Your task to perform on an android device: Open display settings Image 0: 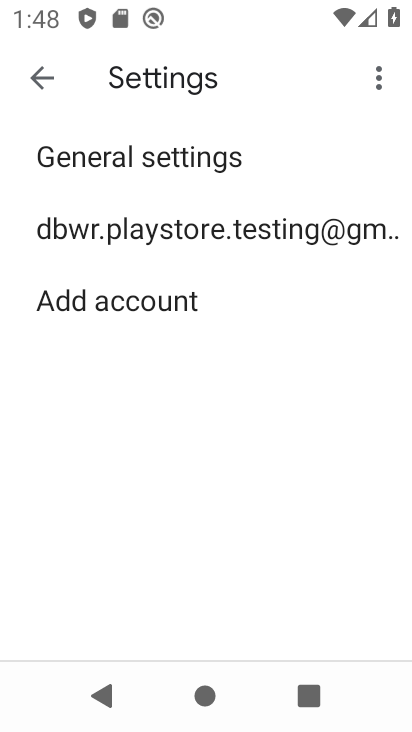
Step 0: press home button
Your task to perform on an android device: Open display settings Image 1: 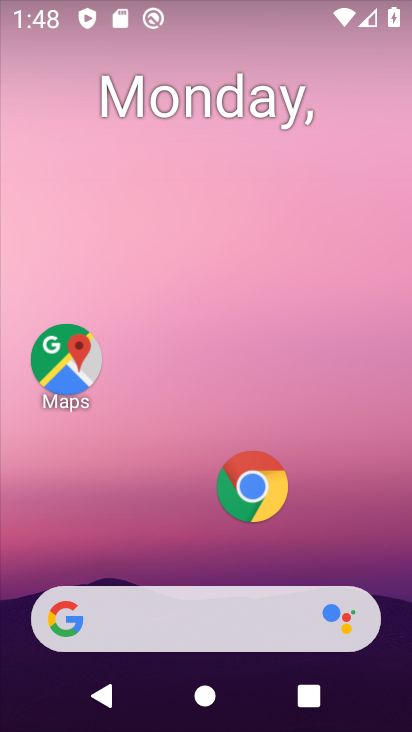
Step 1: drag from (149, 571) to (283, 0)
Your task to perform on an android device: Open display settings Image 2: 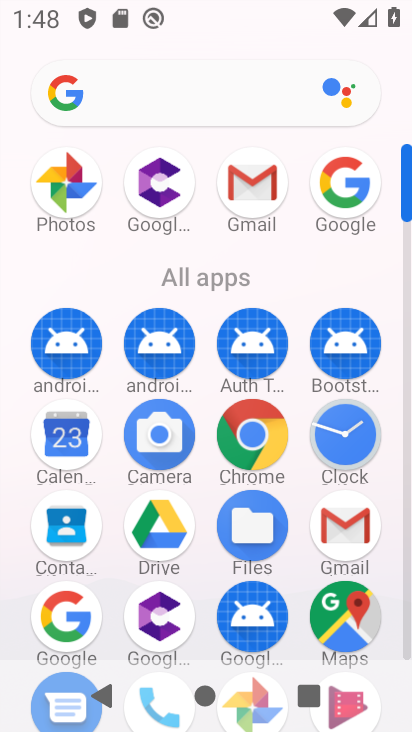
Step 2: drag from (205, 565) to (244, 173)
Your task to perform on an android device: Open display settings Image 3: 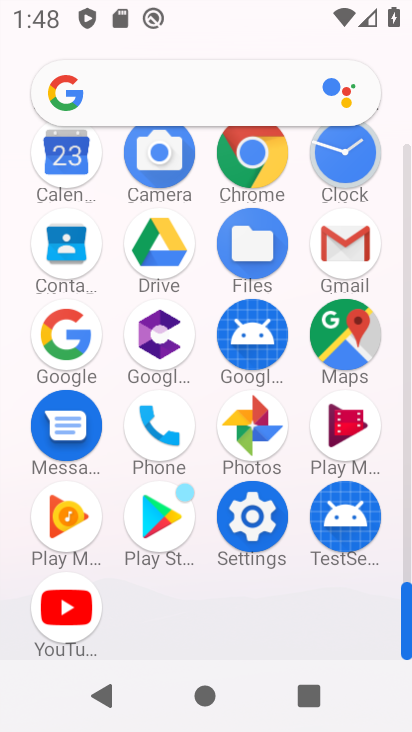
Step 3: click (257, 512)
Your task to perform on an android device: Open display settings Image 4: 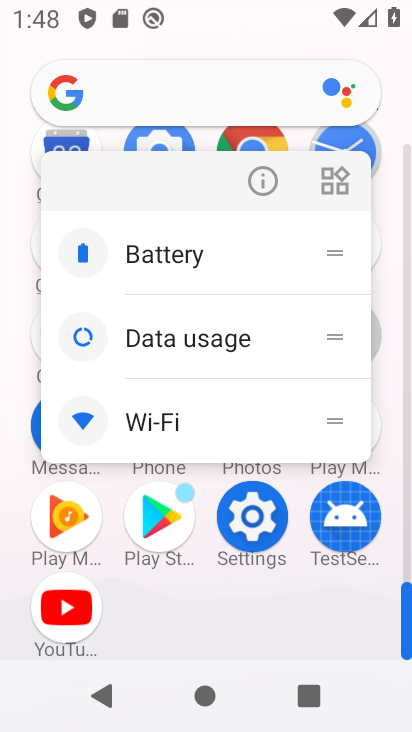
Step 4: click (246, 525)
Your task to perform on an android device: Open display settings Image 5: 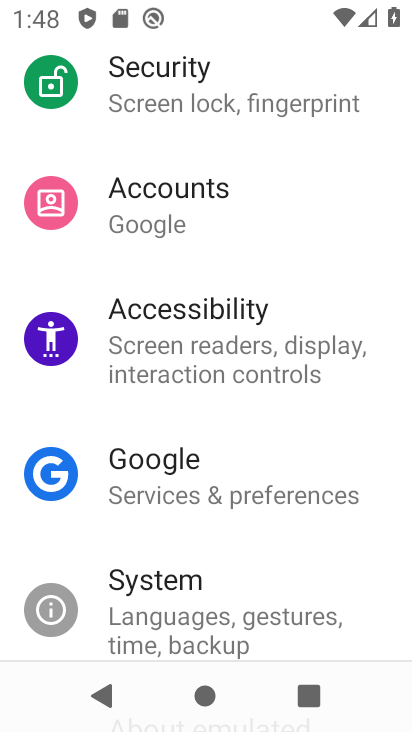
Step 5: drag from (153, 270) to (159, 611)
Your task to perform on an android device: Open display settings Image 6: 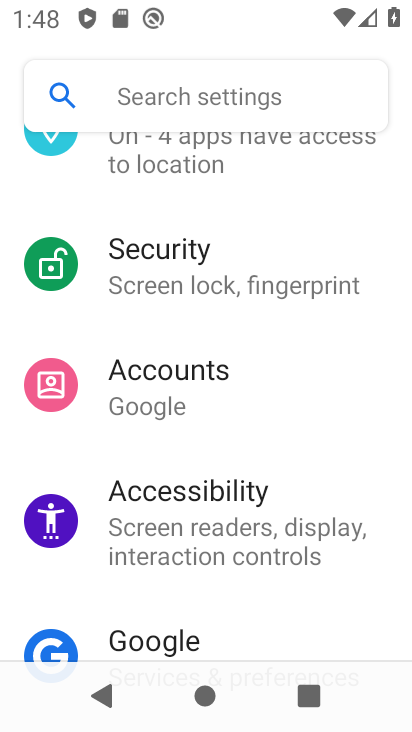
Step 6: drag from (200, 314) to (163, 499)
Your task to perform on an android device: Open display settings Image 7: 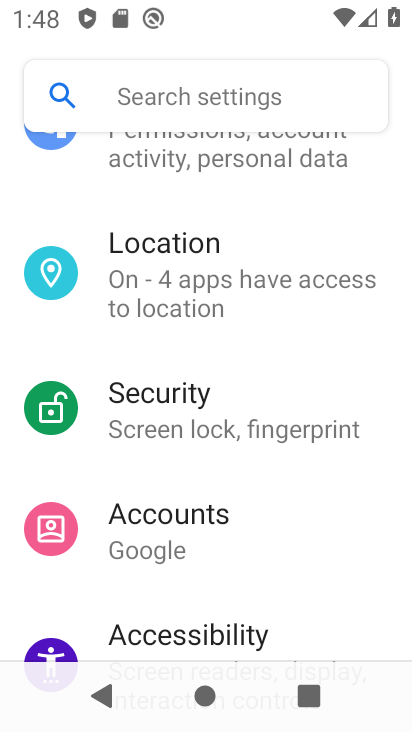
Step 7: drag from (205, 335) to (186, 502)
Your task to perform on an android device: Open display settings Image 8: 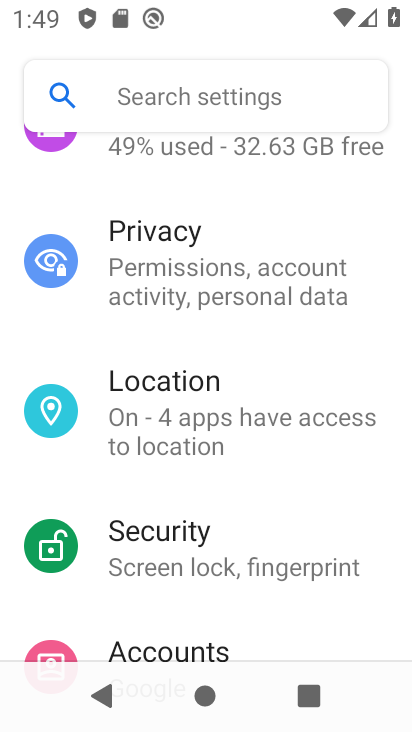
Step 8: drag from (225, 323) to (215, 506)
Your task to perform on an android device: Open display settings Image 9: 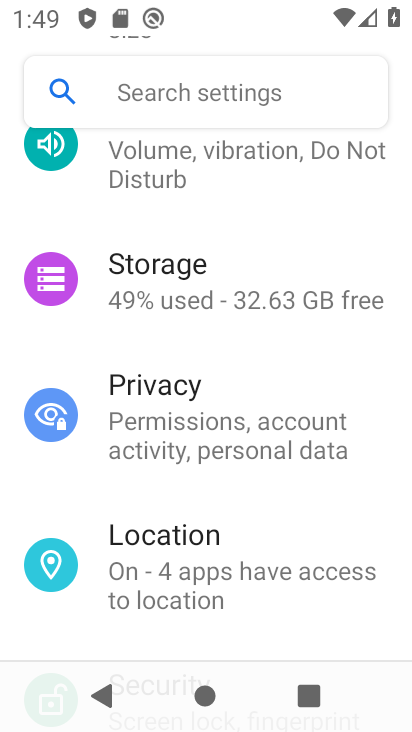
Step 9: drag from (283, 291) to (272, 460)
Your task to perform on an android device: Open display settings Image 10: 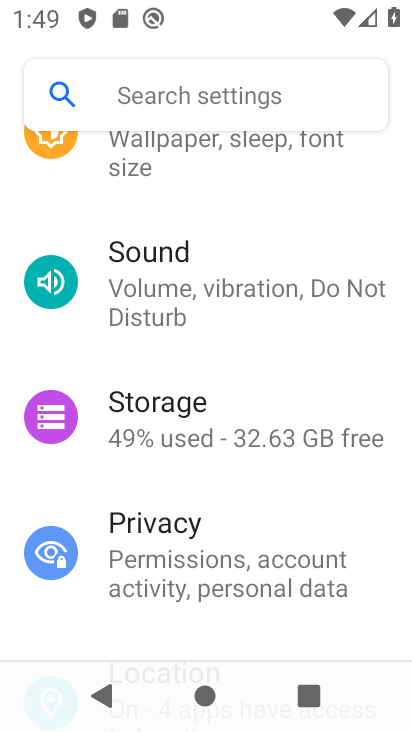
Step 10: drag from (275, 245) to (299, 420)
Your task to perform on an android device: Open display settings Image 11: 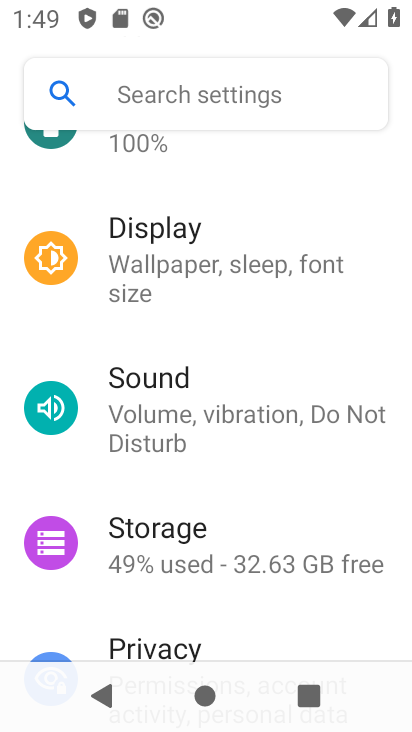
Step 11: click (246, 250)
Your task to perform on an android device: Open display settings Image 12: 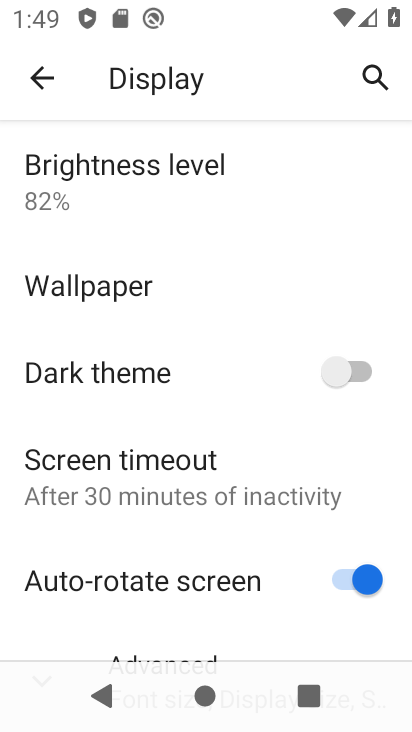
Step 12: task complete